Your task to perform on an android device: Search for seafood restaurants on Google Maps Image 0: 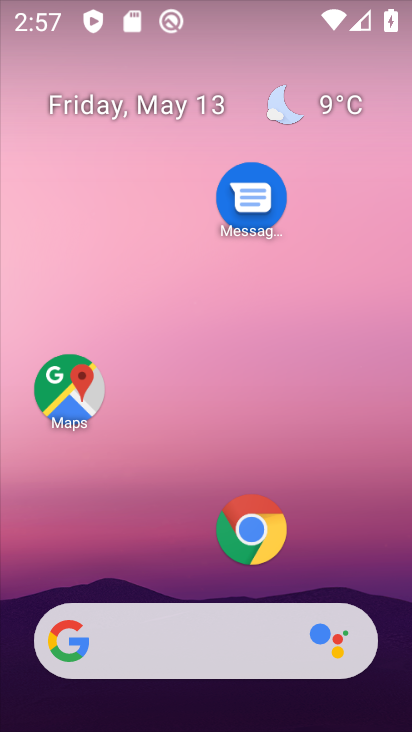
Step 0: click (91, 387)
Your task to perform on an android device: Search for seafood restaurants on Google Maps Image 1: 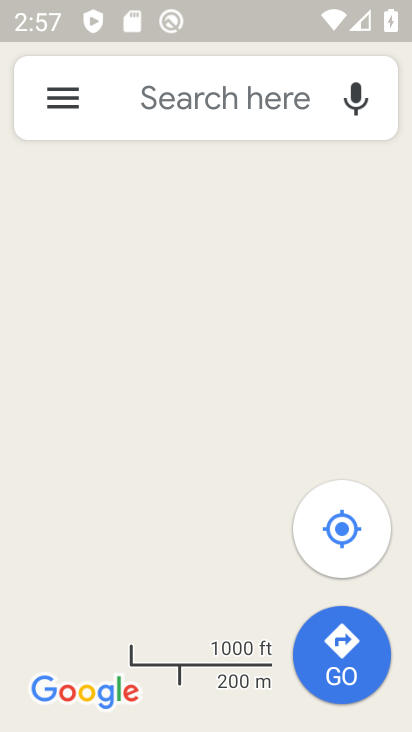
Step 1: click (194, 126)
Your task to perform on an android device: Search for seafood restaurants on Google Maps Image 2: 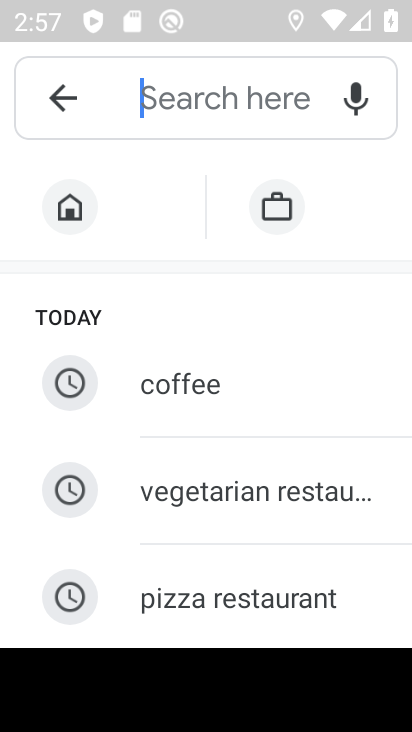
Step 2: type "seafood restaurants"
Your task to perform on an android device: Search for seafood restaurants on Google Maps Image 3: 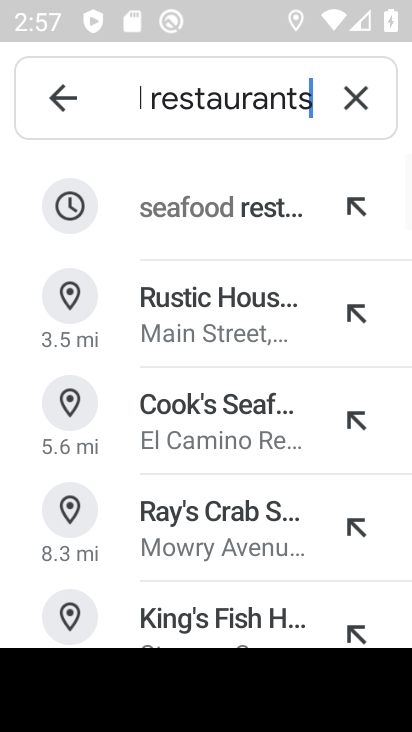
Step 3: click (193, 223)
Your task to perform on an android device: Search for seafood restaurants on Google Maps Image 4: 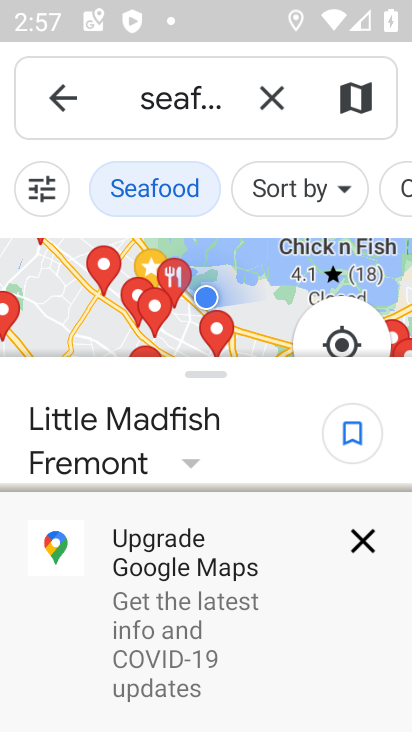
Step 4: click (400, 555)
Your task to perform on an android device: Search for seafood restaurants on Google Maps Image 5: 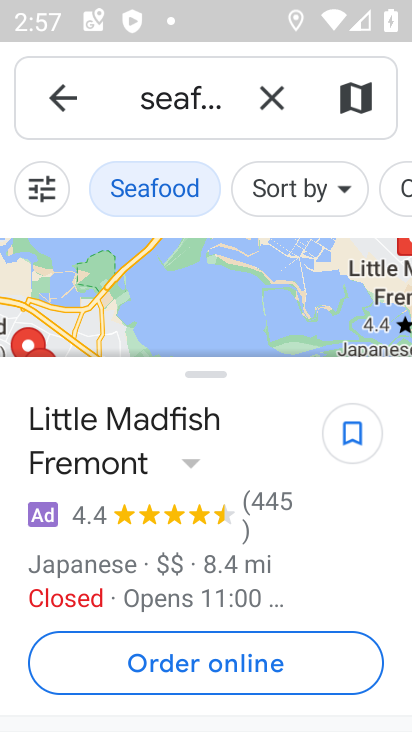
Step 5: task complete